Your task to perform on an android device: Go to Yahoo.com Image 0: 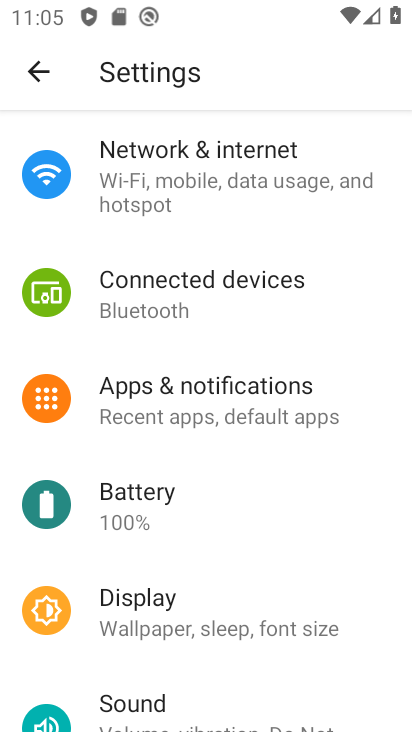
Step 0: press home button
Your task to perform on an android device: Go to Yahoo.com Image 1: 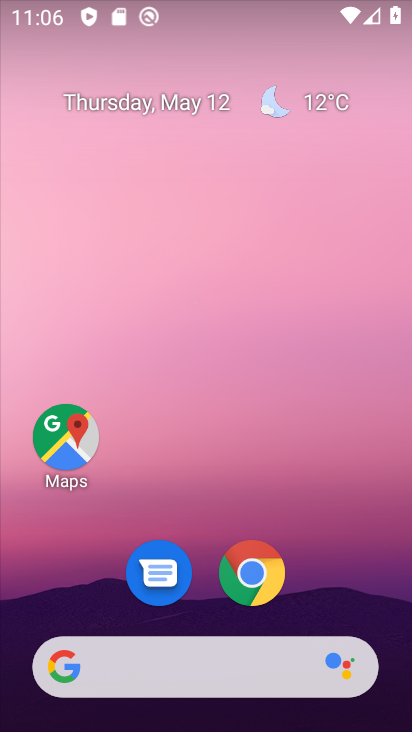
Step 1: drag from (358, 571) to (345, 418)
Your task to perform on an android device: Go to Yahoo.com Image 2: 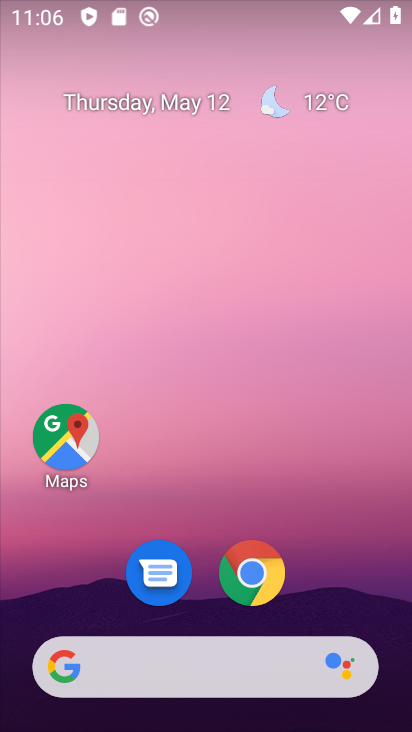
Step 2: drag from (375, 469) to (392, 96)
Your task to perform on an android device: Go to Yahoo.com Image 3: 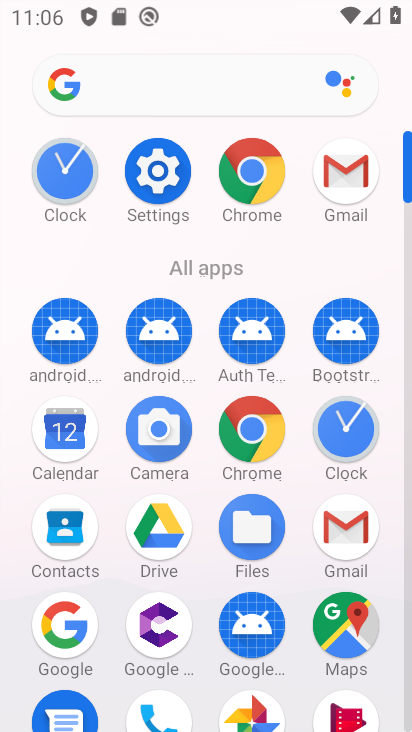
Step 3: click (261, 171)
Your task to perform on an android device: Go to Yahoo.com Image 4: 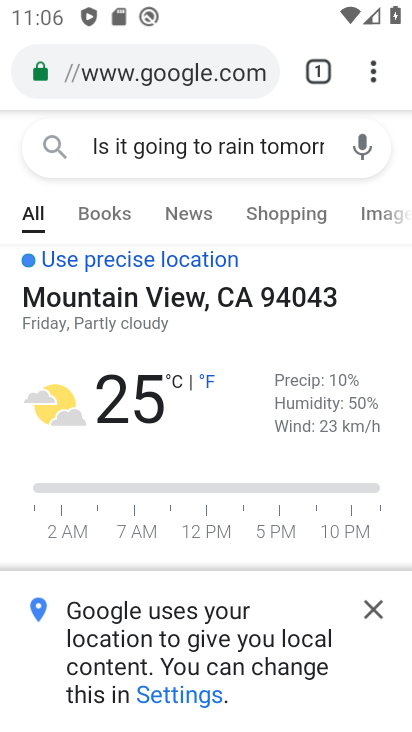
Step 4: click (228, 77)
Your task to perform on an android device: Go to Yahoo.com Image 5: 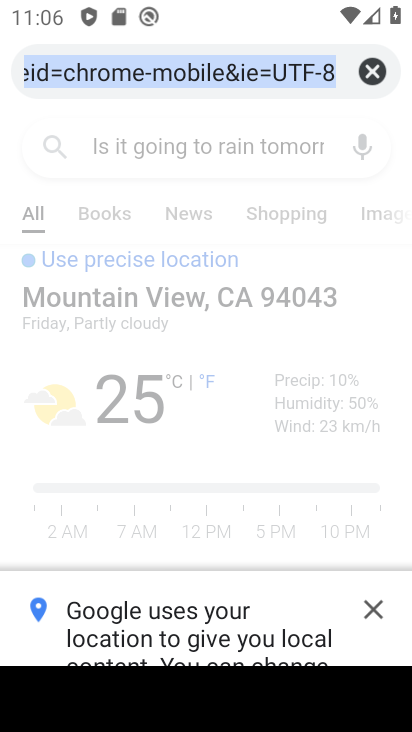
Step 5: click (363, 65)
Your task to perform on an android device: Go to Yahoo.com Image 6: 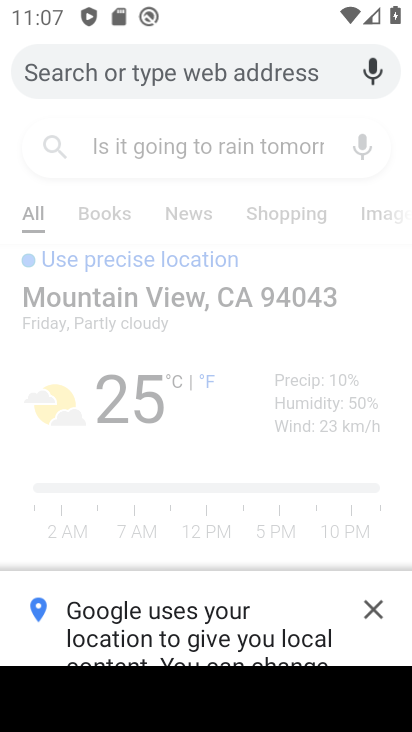
Step 6: type "Yahoo.com"
Your task to perform on an android device: Go to Yahoo.com Image 7: 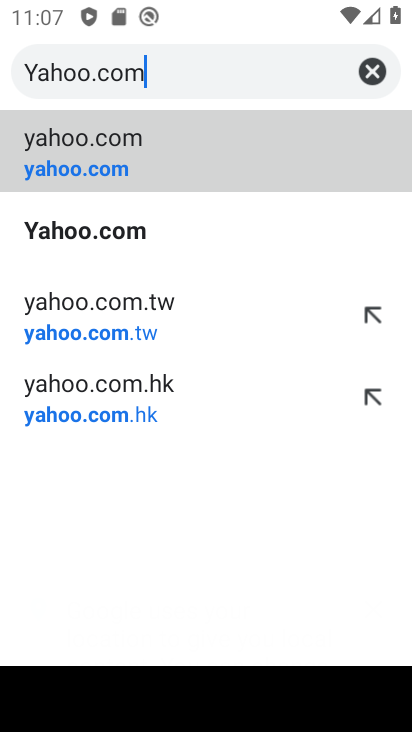
Step 7: click (360, 134)
Your task to perform on an android device: Go to Yahoo.com Image 8: 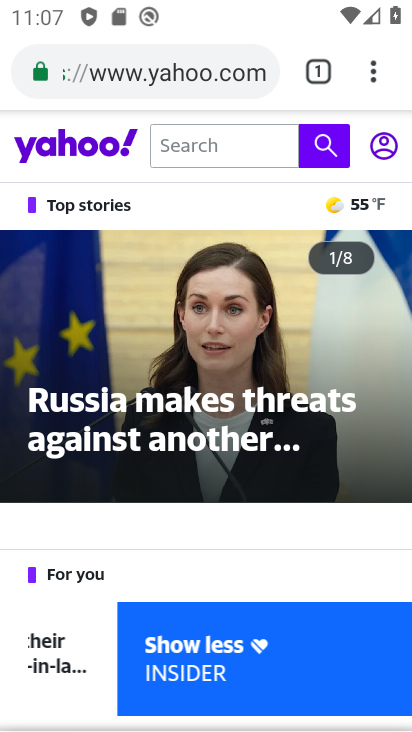
Step 8: task complete